Your task to perform on an android device: turn on data saver in the chrome app Image 0: 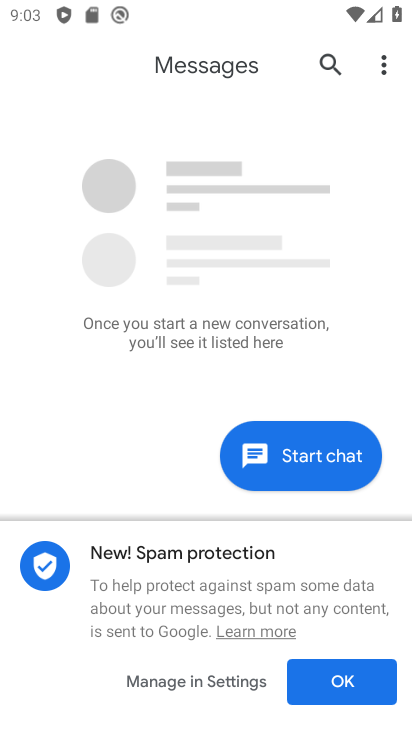
Step 0: press home button
Your task to perform on an android device: turn on data saver in the chrome app Image 1: 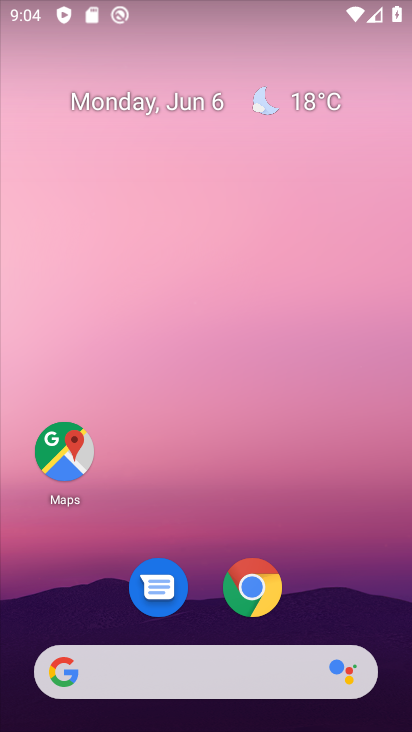
Step 1: click (248, 589)
Your task to perform on an android device: turn on data saver in the chrome app Image 2: 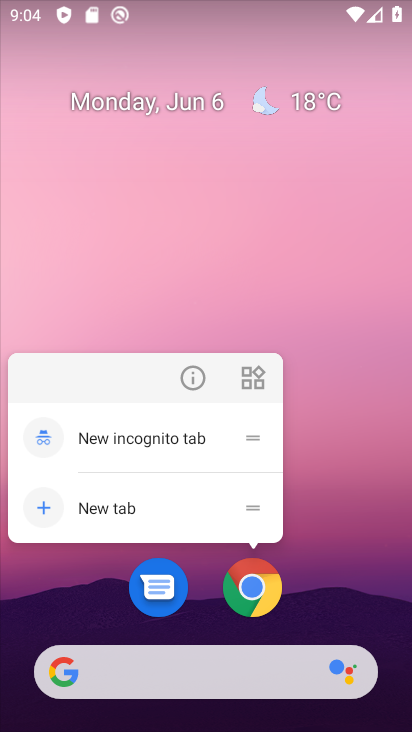
Step 2: click (399, 504)
Your task to perform on an android device: turn on data saver in the chrome app Image 3: 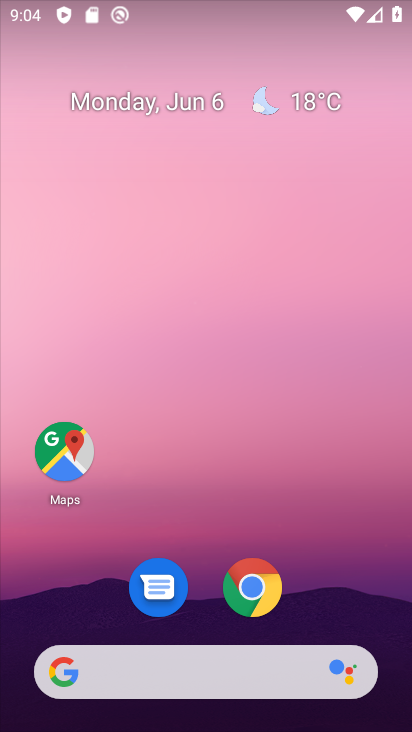
Step 3: click (364, 547)
Your task to perform on an android device: turn on data saver in the chrome app Image 4: 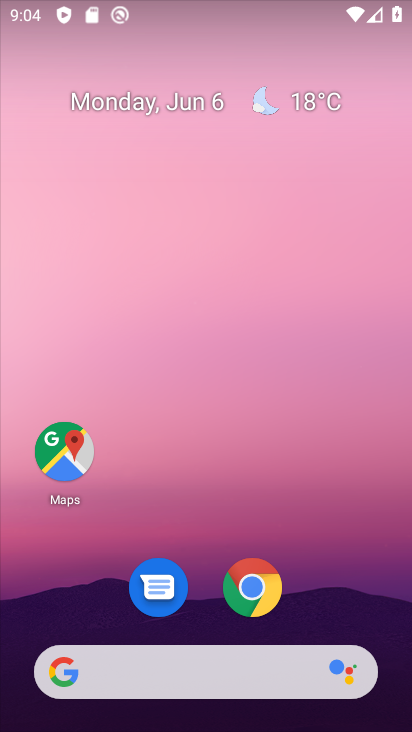
Step 4: drag from (331, 549) to (340, 23)
Your task to perform on an android device: turn on data saver in the chrome app Image 5: 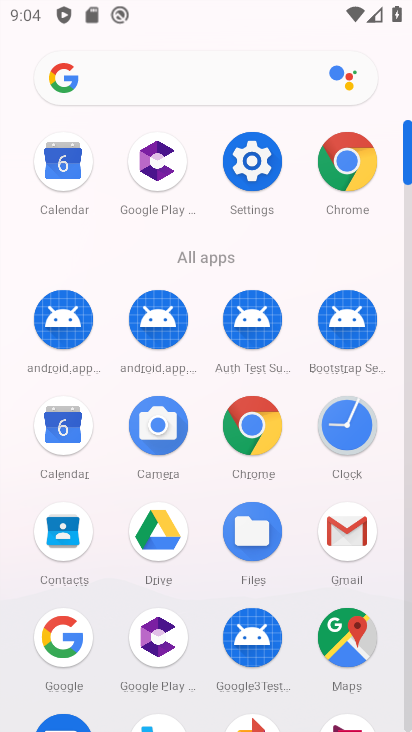
Step 5: click (258, 428)
Your task to perform on an android device: turn on data saver in the chrome app Image 6: 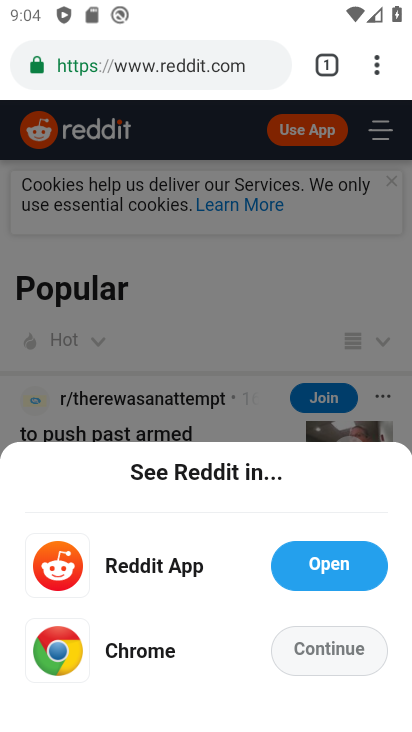
Step 6: click (379, 61)
Your task to perform on an android device: turn on data saver in the chrome app Image 7: 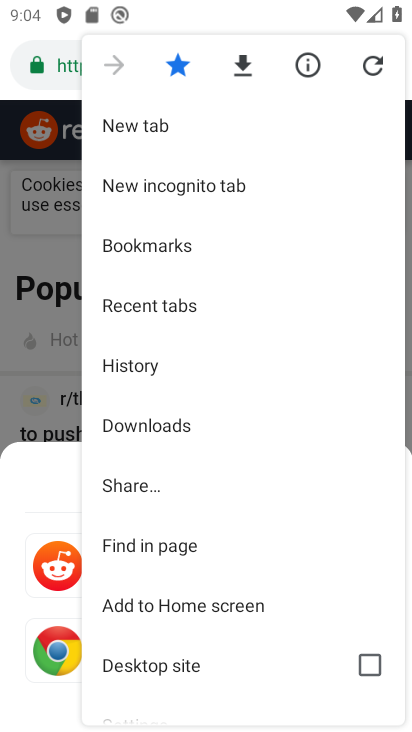
Step 7: drag from (205, 652) to (290, 231)
Your task to perform on an android device: turn on data saver in the chrome app Image 8: 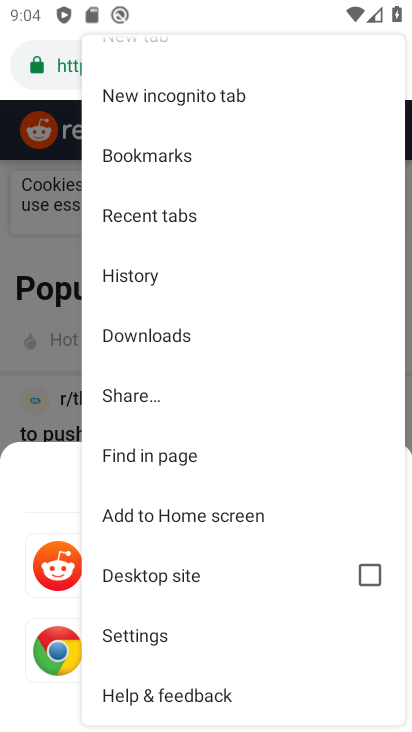
Step 8: click (163, 639)
Your task to perform on an android device: turn on data saver in the chrome app Image 9: 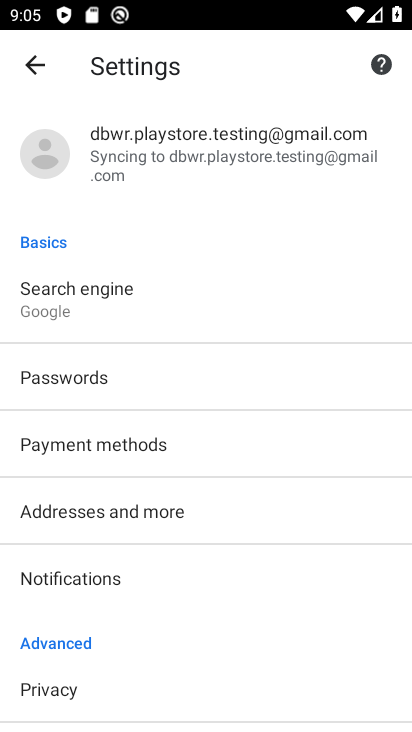
Step 9: drag from (105, 649) to (265, 282)
Your task to perform on an android device: turn on data saver in the chrome app Image 10: 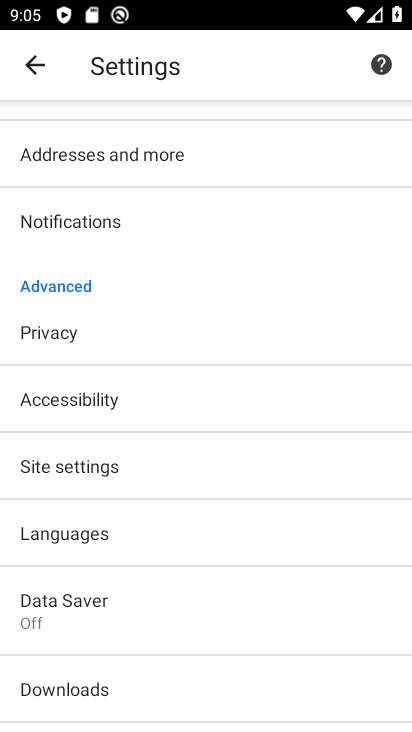
Step 10: click (63, 609)
Your task to perform on an android device: turn on data saver in the chrome app Image 11: 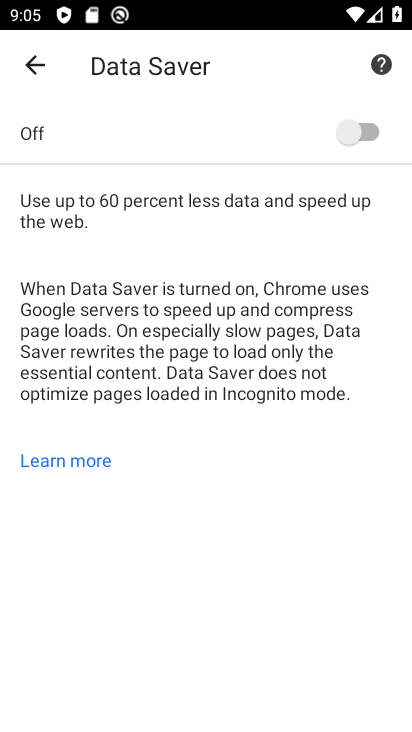
Step 11: click (343, 131)
Your task to perform on an android device: turn on data saver in the chrome app Image 12: 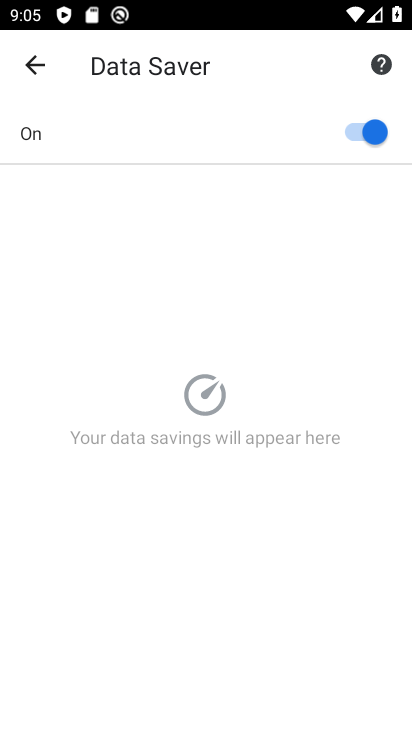
Step 12: task complete